Your task to perform on an android device: Open settings Image 0: 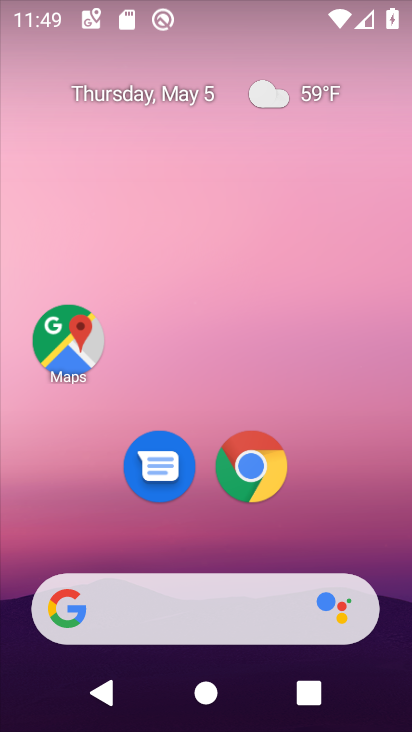
Step 0: drag from (346, 505) to (286, 165)
Your task to perform on an android device: Open settings Image 1: 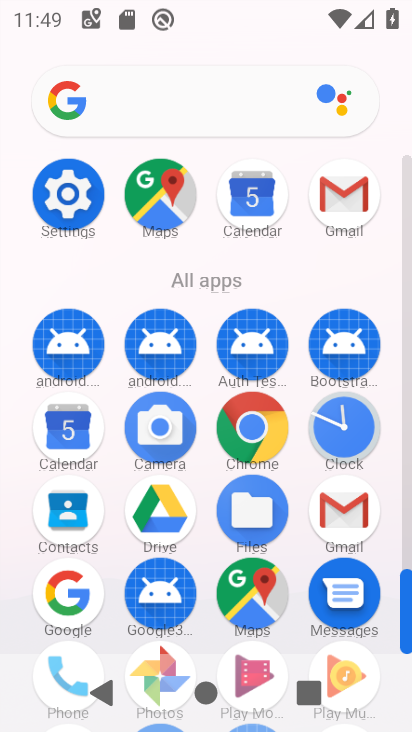
Step 1: click (87, 197)
Your task to perform on an android device: Open settings Image 2: 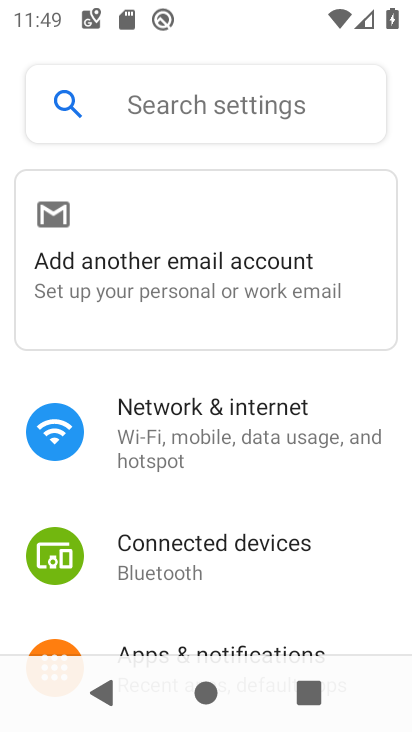
Step 2: task complete